Your task to perform on an android device: delete browsing data in the chrome app Image 0: 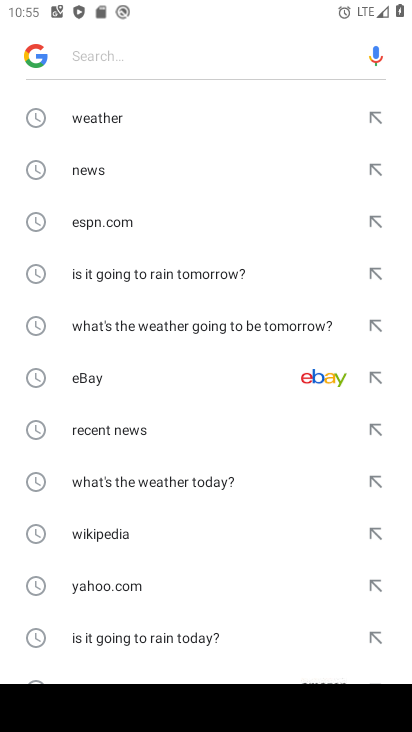
Step 0: press home button
Your task to perform on an android device: delete browsing data in the chrome app Image 1: 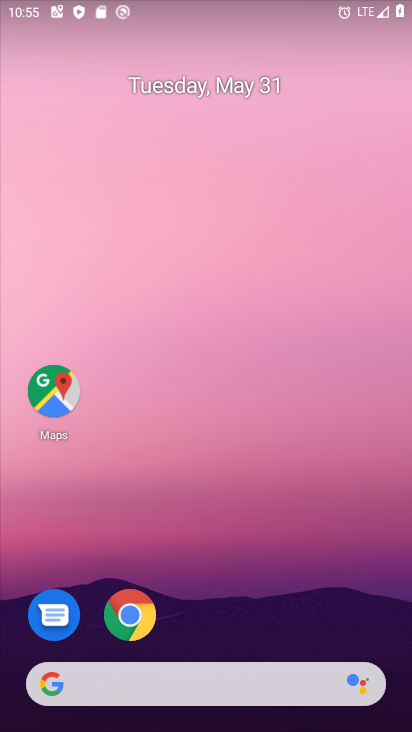
Step 1: drag from (308, 621) to (252, 8)
Your task to perform on an android device: delete browsing data in the chrome app Image 2: 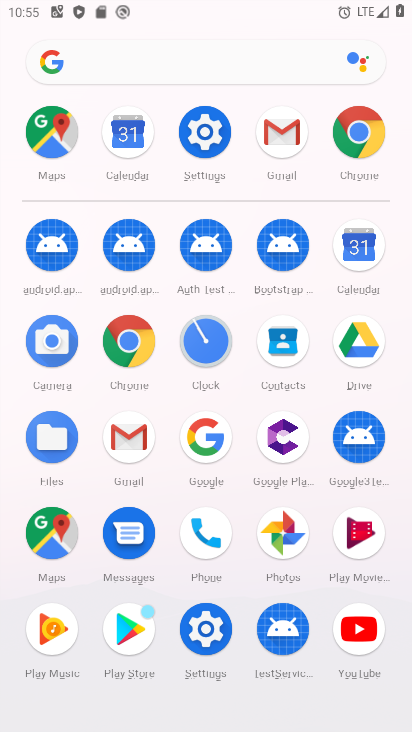
Step 2: click (369, 149)
Your task to perform on an android device: delete browsing data in the chrome app Image 3: 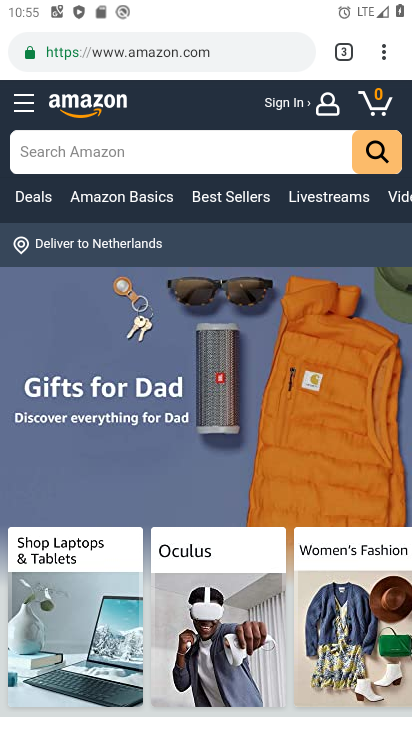
Step 3: drag from (395, 50) to (250, 287)
Your task to perform on an android device: delete browsing data in the chrome app Image 4: 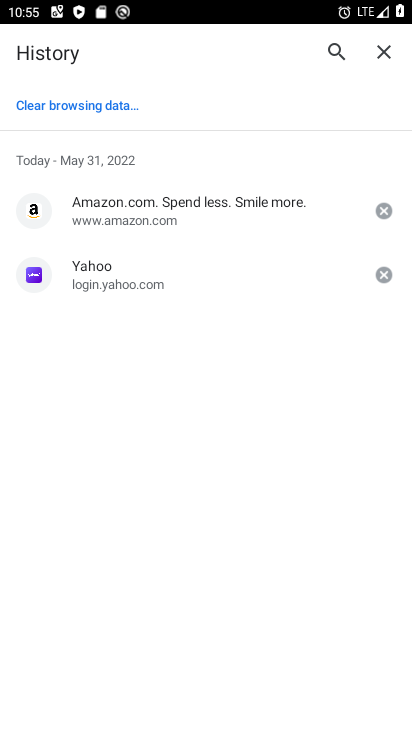
Step 4: click (61, 93)
Your task to perform on an android device: delete browsing data in the chrome app Image 5: 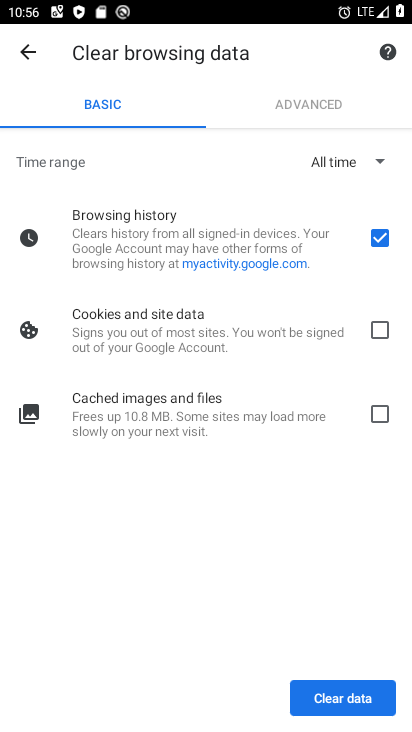
Step 5: click (353, 703)
Your task to perform on an android device: delete browsing data in the chrome app Image 6: 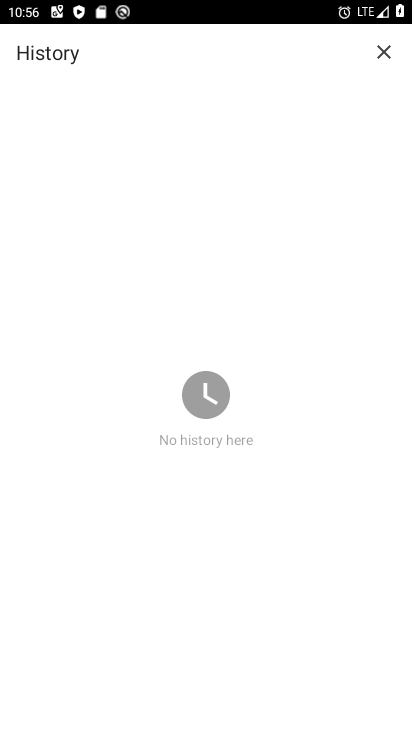
Step 6: task complete